Your task to perform on an android device: turn notification dots off Image 0: 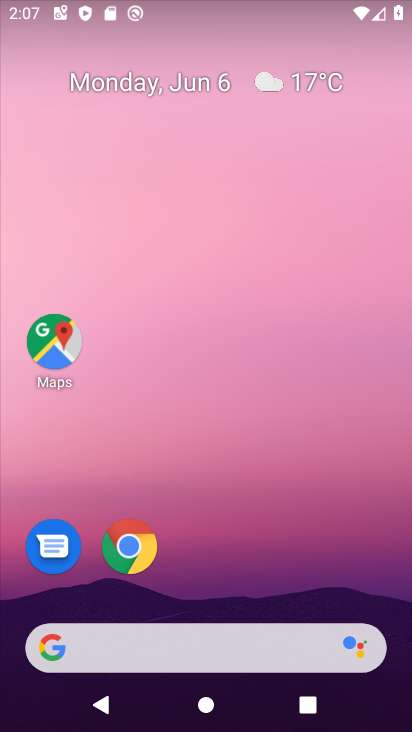
Step 0: drag from (312, 578) to (263, 117)
Your task to perform on an android device: turn notification dots off Image 1: 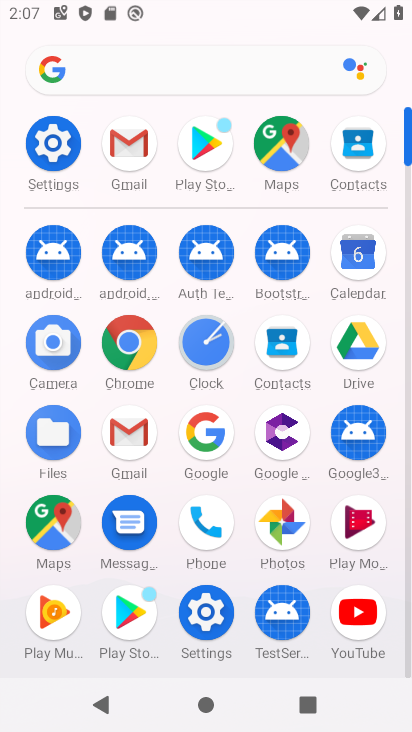
Step 1: click (217, 602)
Your task to perform on an android device: turn notification dots off Image 2: 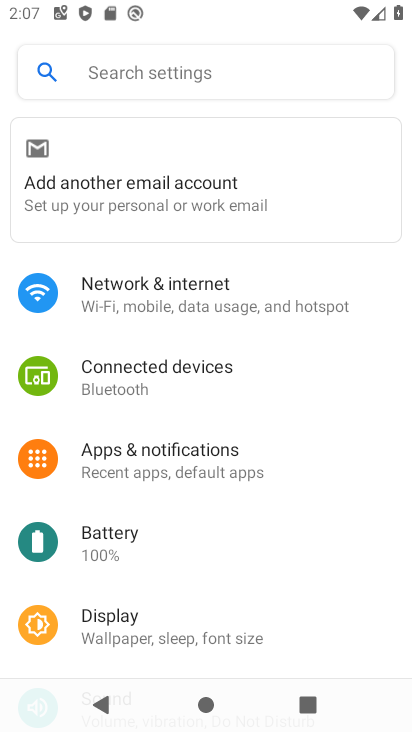
Step 2: drag from (239, 609) to (239, 293)
Your task to perform on an android device: turn notification dots off Image 3: 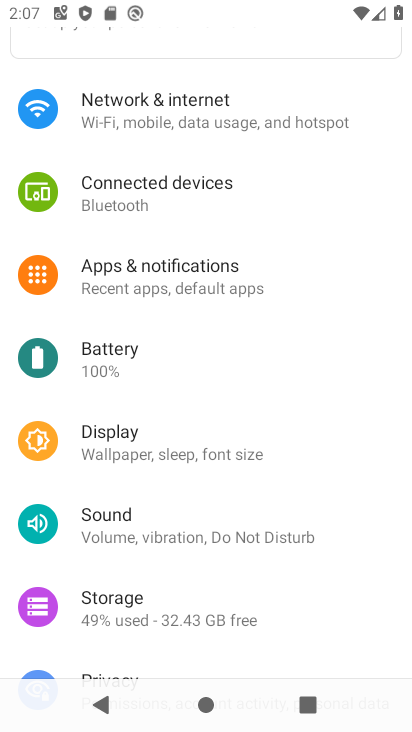
Step 3: click (198, 299)
Your task to perform on an android device: turn notification dots off Image 4: 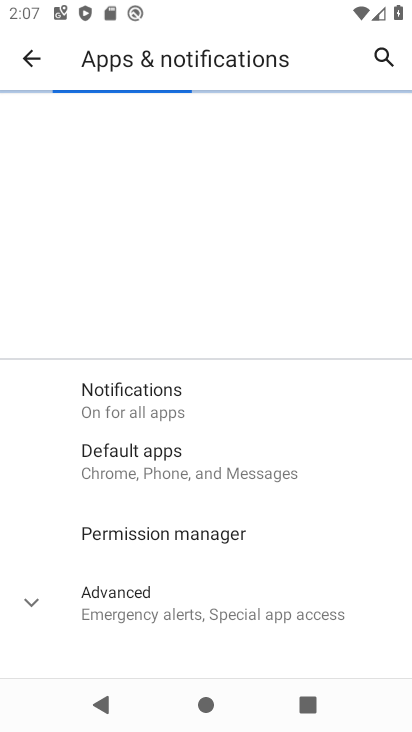
Step 4: task complete